Your task to perform on an android device: Go to Google Image 0: 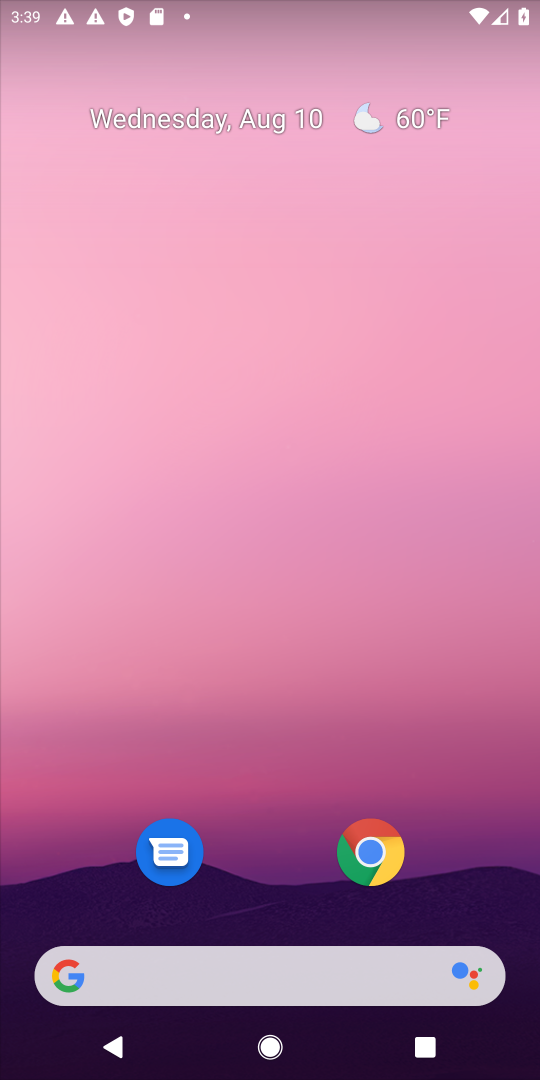
Step 0: drag from (262, 843) to (334, 22)
Your task to perform on an android device: Go to Google Image 1: 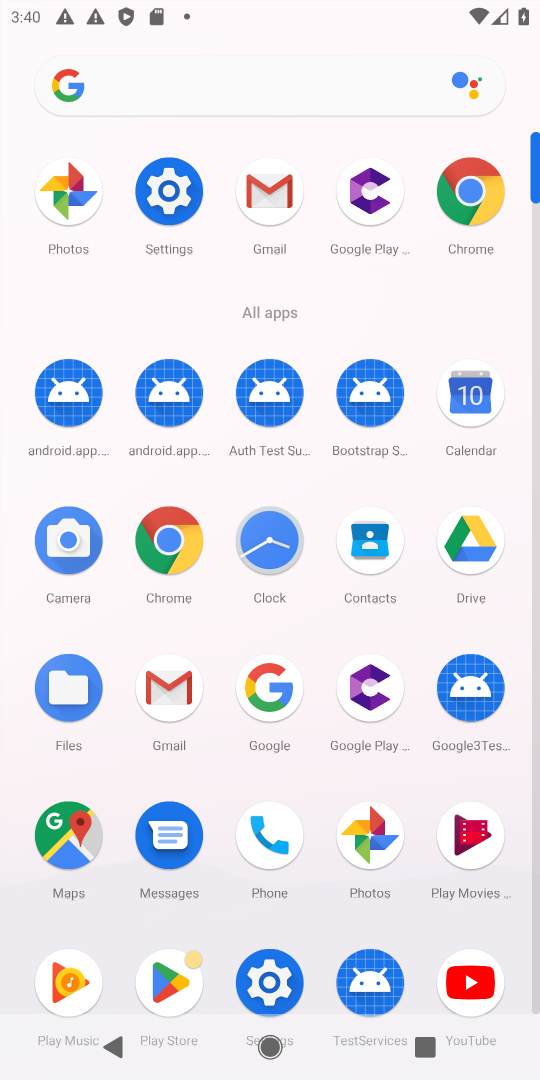
Step 1: click (278, 694)
Your task to perform on an android device: Go to Google Image 2: 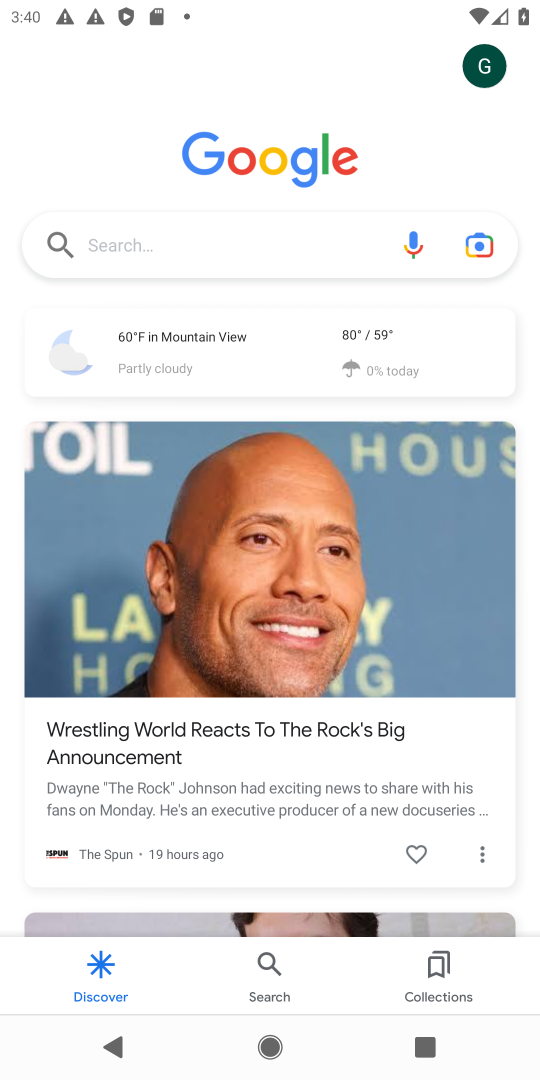
Step 2: task complete